Your task to perform on an android device: open chrome and create a bookmark for the current page Image 0: 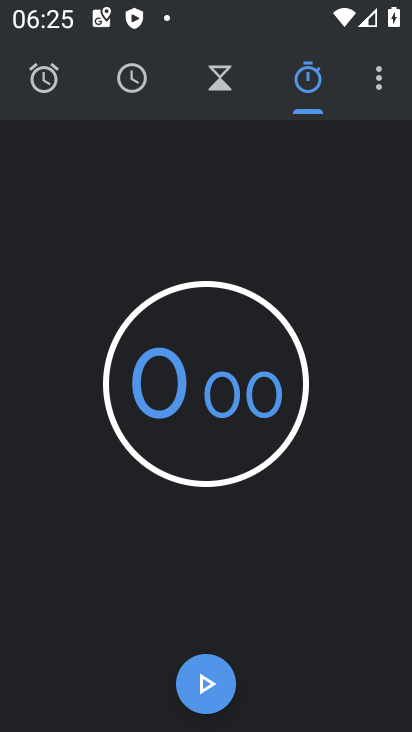
Step 0: press home button
Your task to perform on an android device: open chrome and create a bookmark for the current page Image 1: 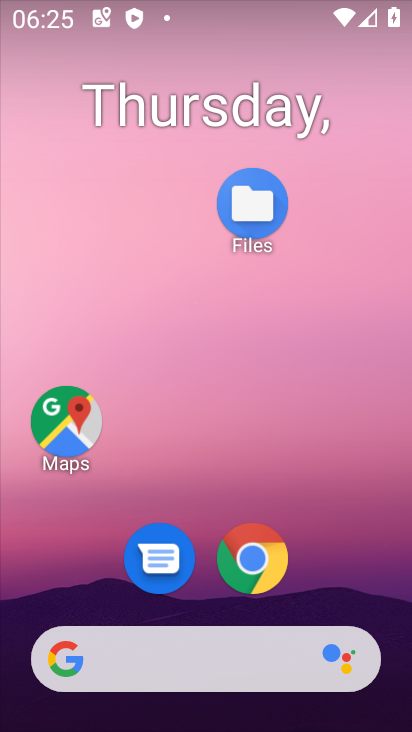
Step 1: click (249, 561)
Your task to perform on an android device: open chrome and create a bookmark for the current page Image 2: 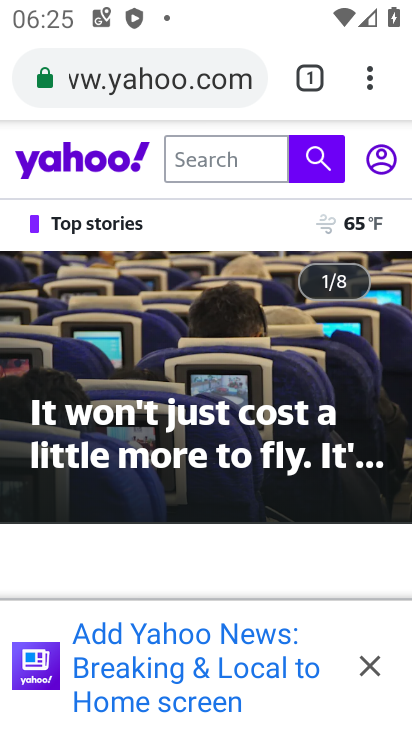
Step 2: click (373, 79)
Your task to perform on an android device: open chrome and create a bookmark for the current page Image 3: 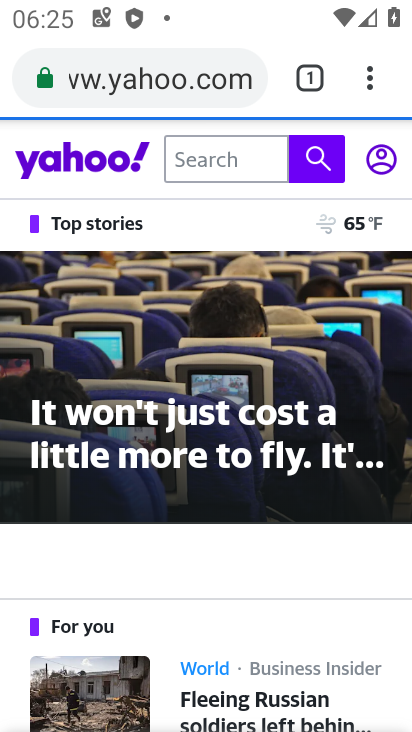
Step 3: click (366, 83)
Your task to perform on an android device: open chrome and create a bookmark for the current page Image 4: 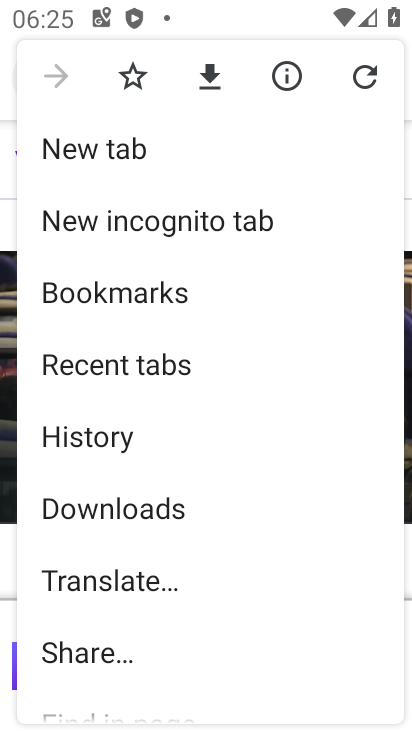
Step 4: click (133, 72)
Your task to perform on an android device: open chrome and create a bookmark for the current page Image 5: 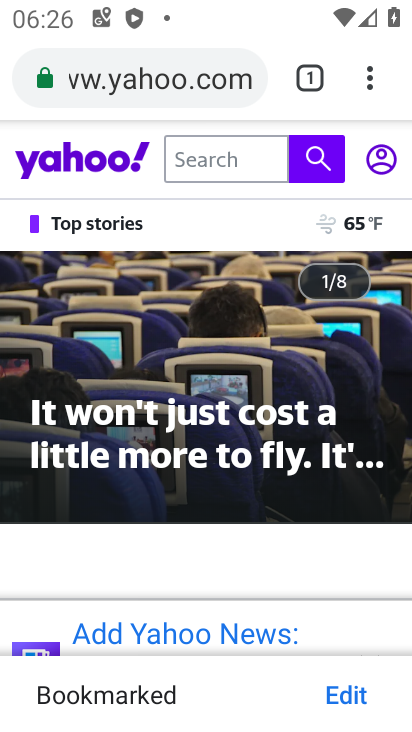
Step 5: task complete